Your task to perform on an android device: Check the news Image 0: 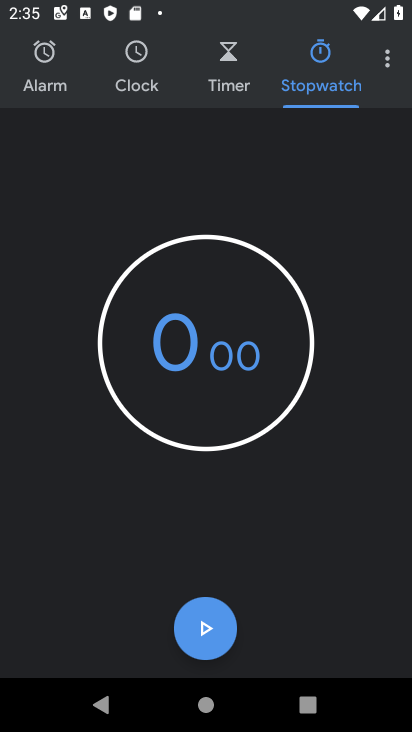
Step 0: press home button
Your task to perform on an android device: Check the news Image 1: 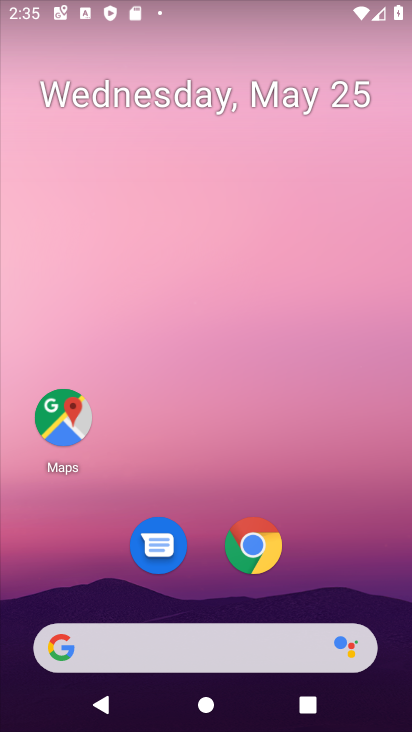
Step 1: click (351, 582)
Your task to perform on an android device: Check the news Image 2: 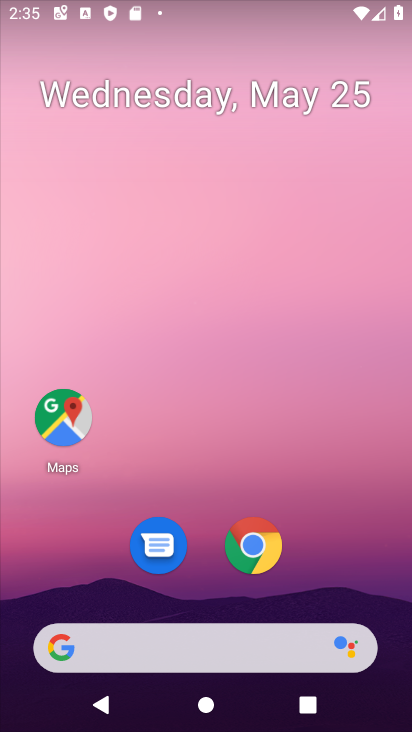
Step 2: click (246, 652)
Your task to perform on an android device: Check the news Image 3: 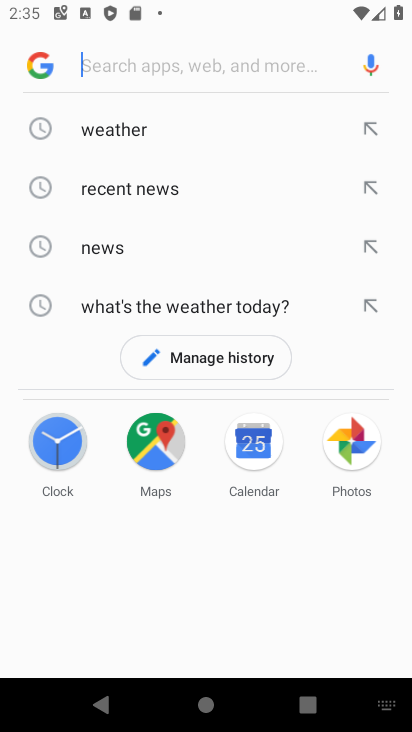
Step 3: click (138, 248)
Your task to perform on an android device: Check the news Image 4: 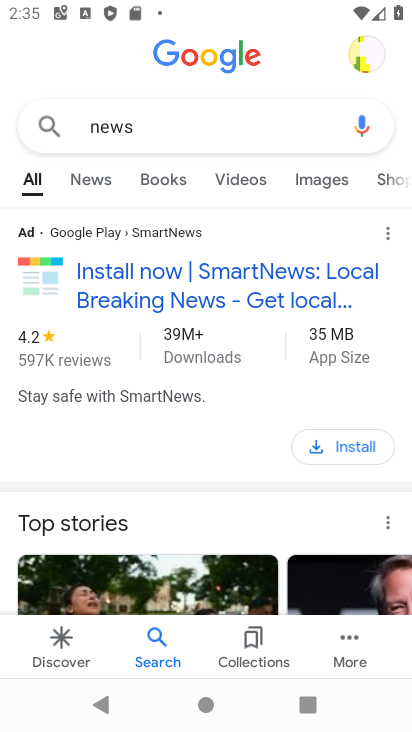
Step 4: task complete